Your task to perform on an android device: check data usage Image 0: 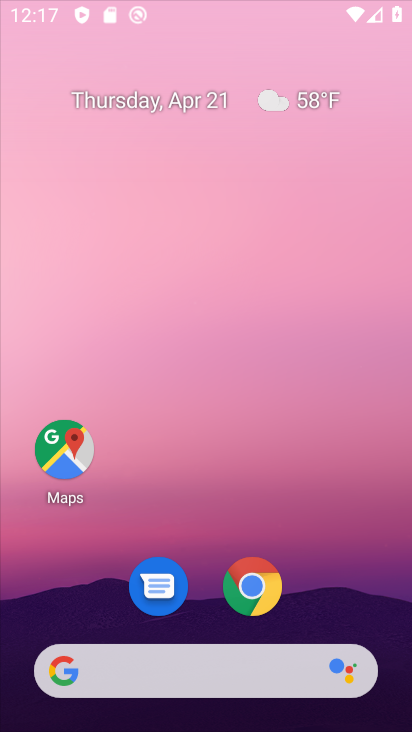
Step 0: drag from (225, 12) to (263, 26)
Your task to perform on an android device: check data usage Image 1: 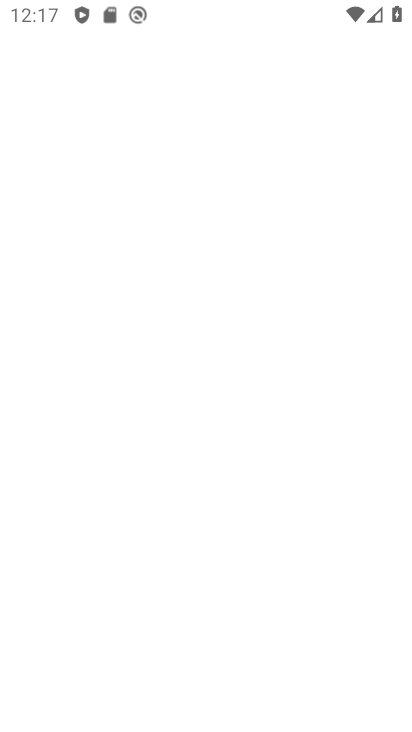
Step 1: press home button
Your task to perform on an android device: check data usage Image 2: 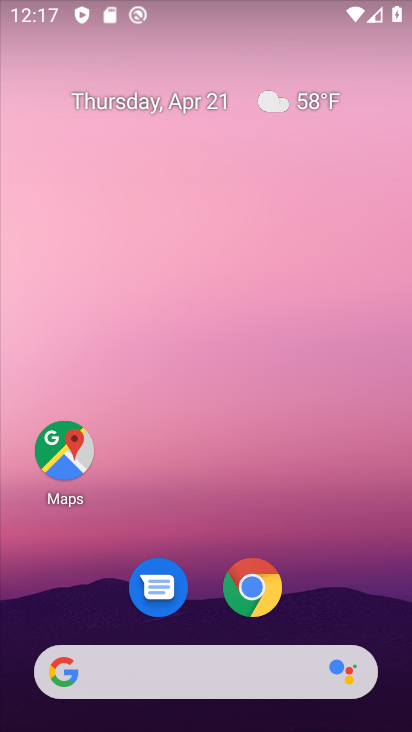
Step 2: drag from (178, 477) to (268, 17)
Your task to perform on an android device: check data usage Image 3: 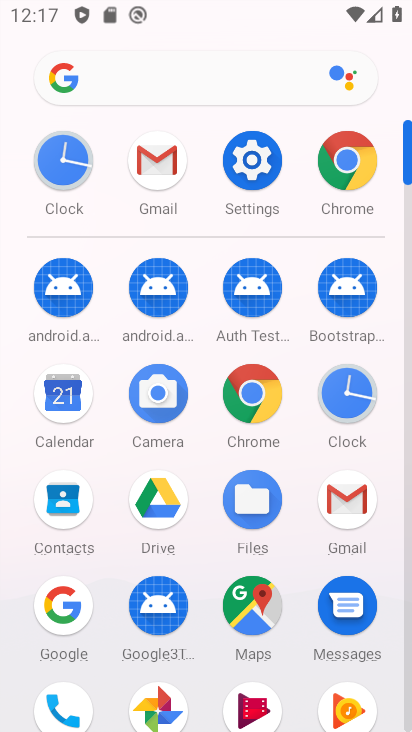
Step 3: click (266, 172)
Your task to perform on an android device: check data usage Image 4: 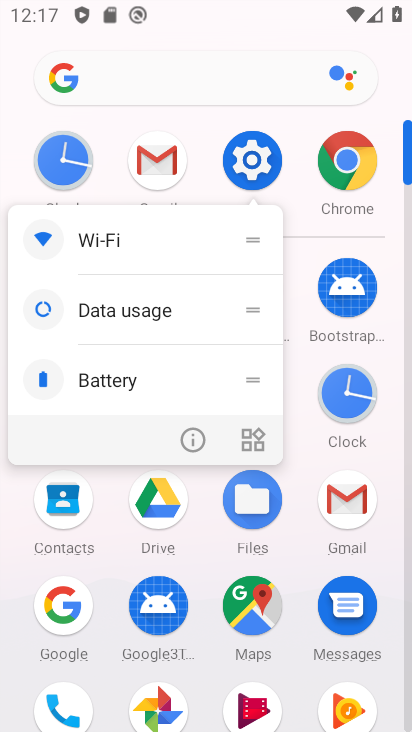
Step 4: click (236, 166)
Your task to perform on an android device: check data usage Image 5: 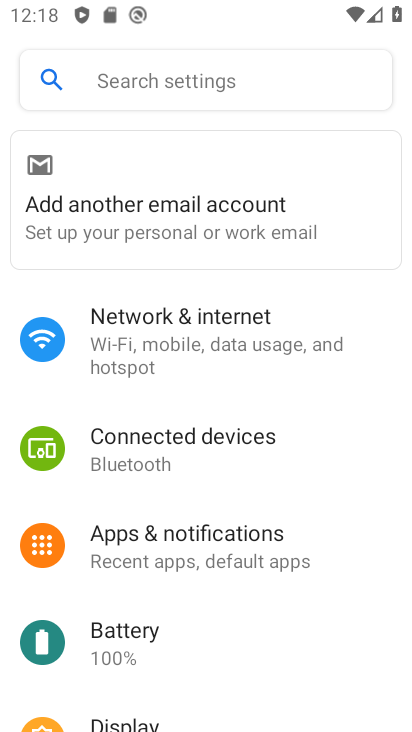
Step 5: click (153, 349)
Your task to perform on an android device: check data usage Image 6: 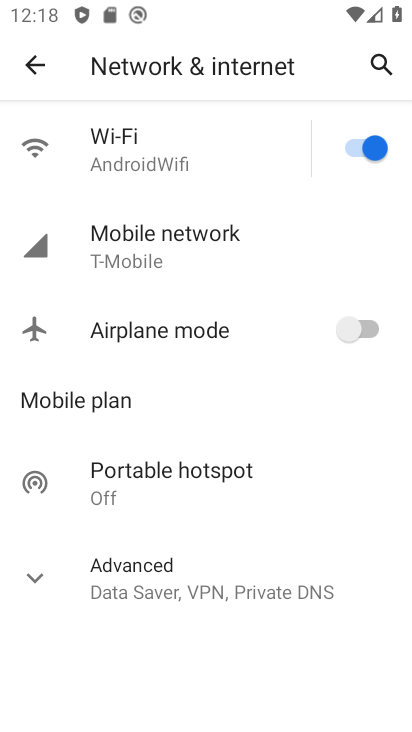
Step 6: click (176, 258)
Your task to perform on an android device: check data usage Image 7: 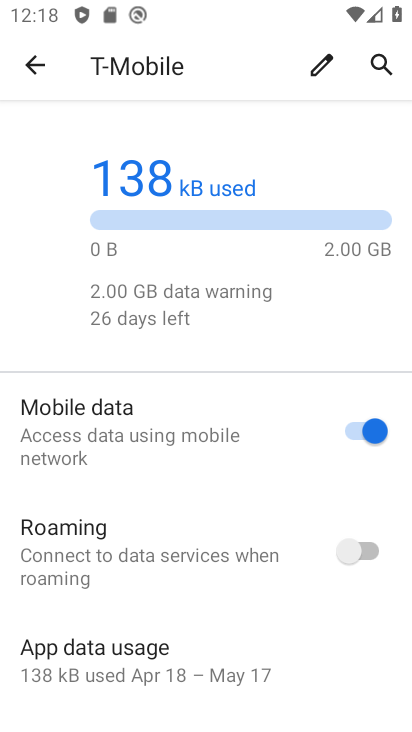
Step 7: drag from (124, 602) to (181, 123)
Your task to perform on an android device: check data usage Image 8: 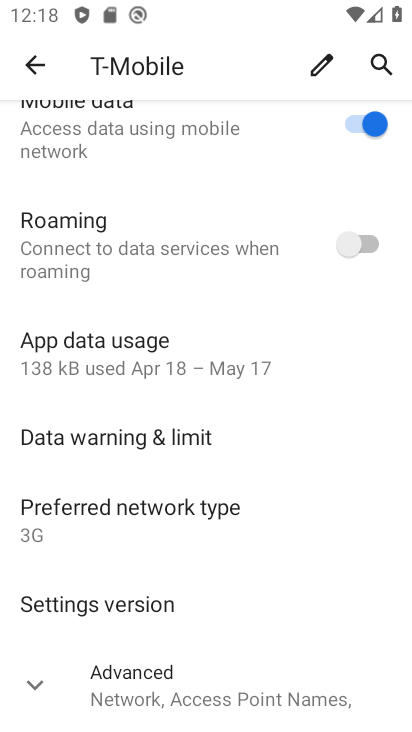
Step 8: click (136, 359)
Your task to perform on an android device: check data usage Image 9: 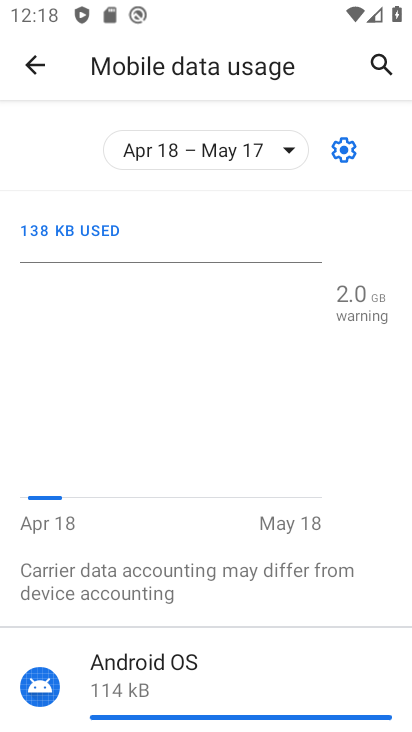
Step 9: task complete